Your task to perform on an android device: Go to Reddit.com Image 0: 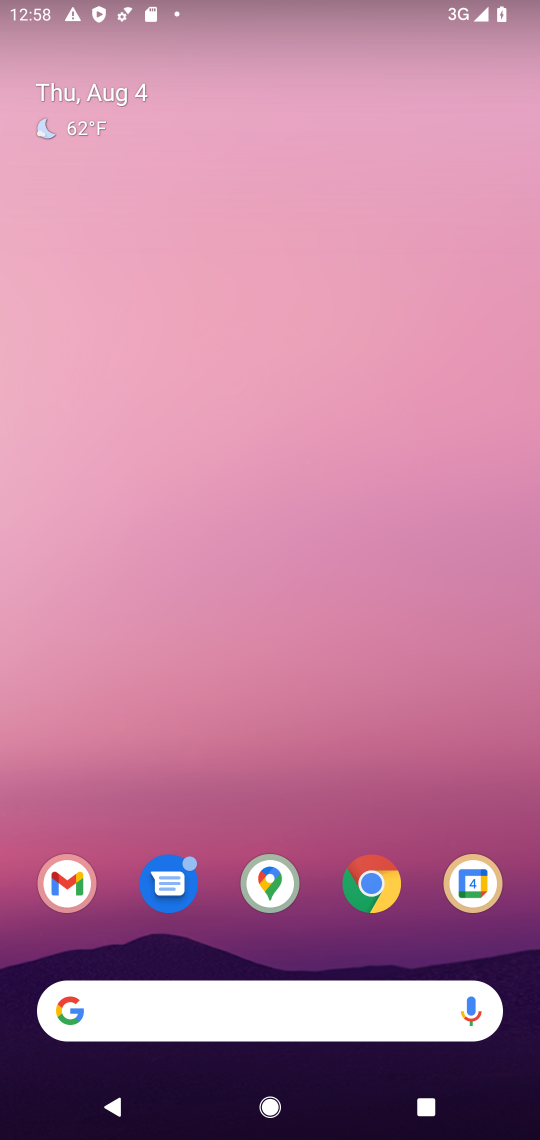
Step 0: drag from (311, 664) to (333, 234)
Your task to perform on an android device: Go to Reddit.com Image 1: 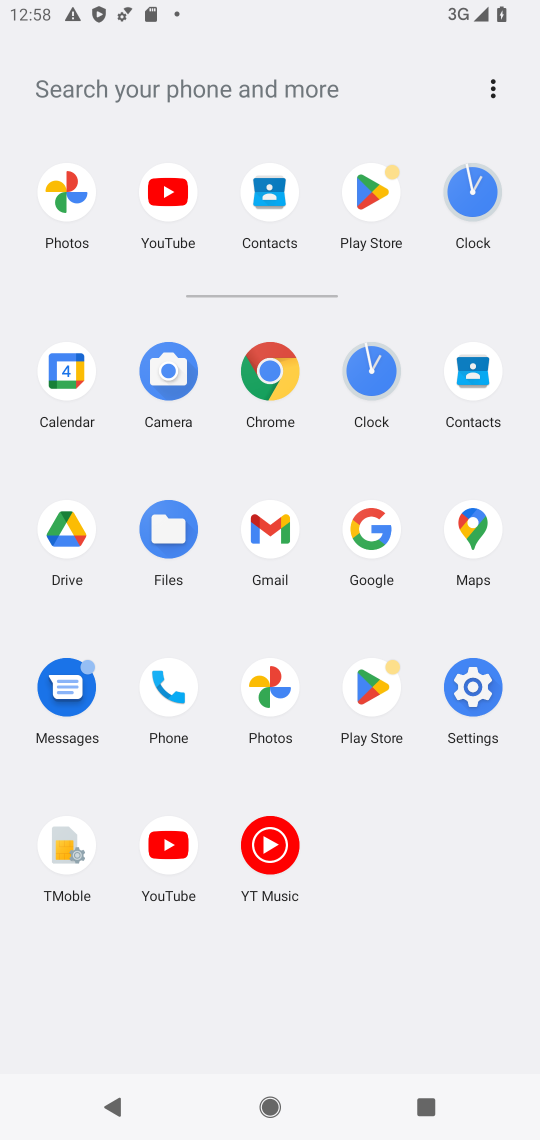
Step 1: click (257, 353)
Your task to perform on an android device: Go to Reddit.com Image 2: 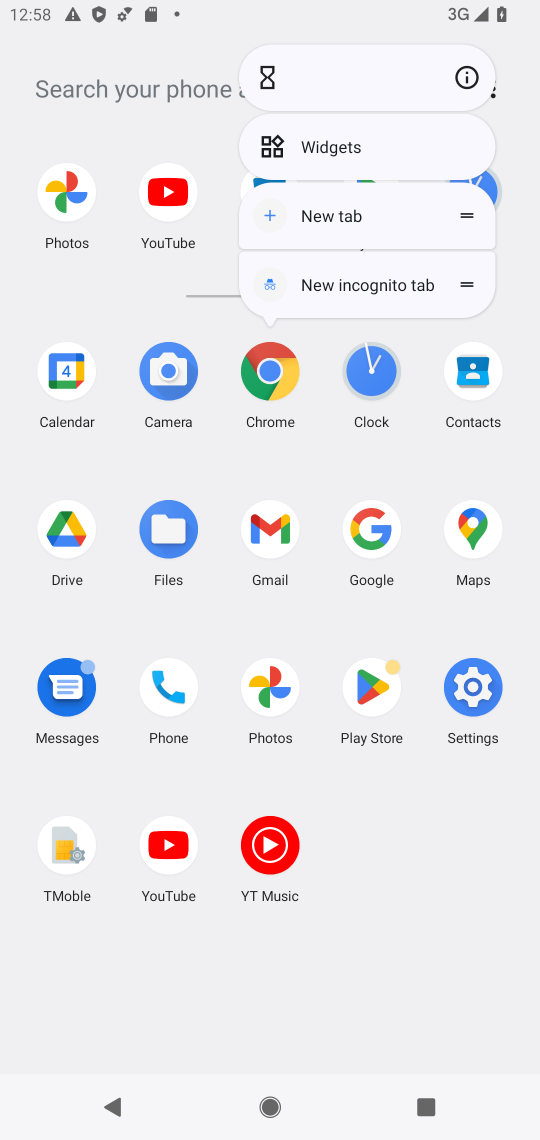
Step 2: click (468, 73)
Your task to perform on an android device: Go to Reddit.com Image 3: 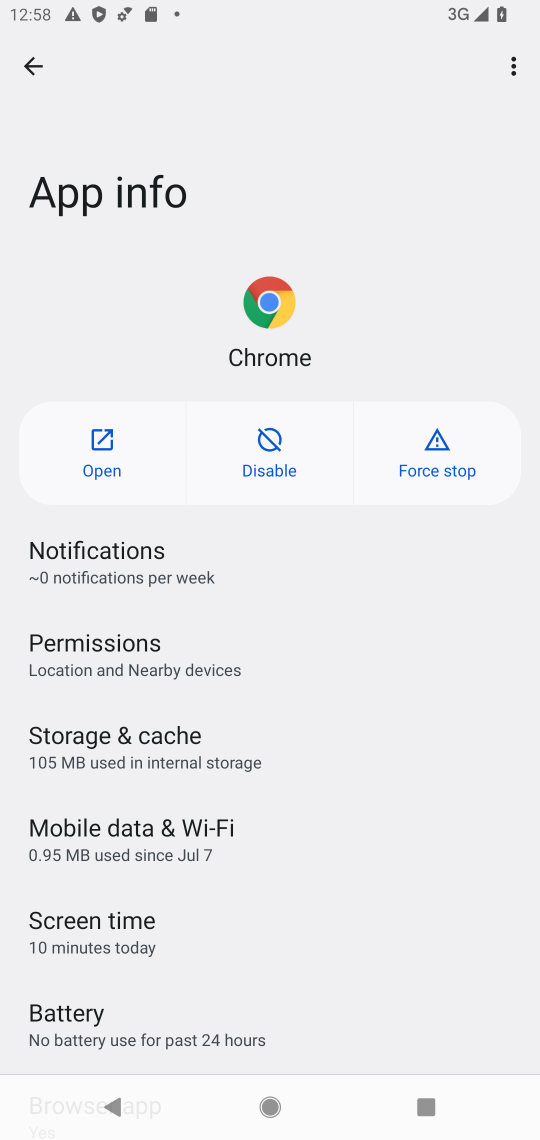
Step 3: click (118, 466)
Your task to perform on an android device: Go to Reddit.com Image 4: 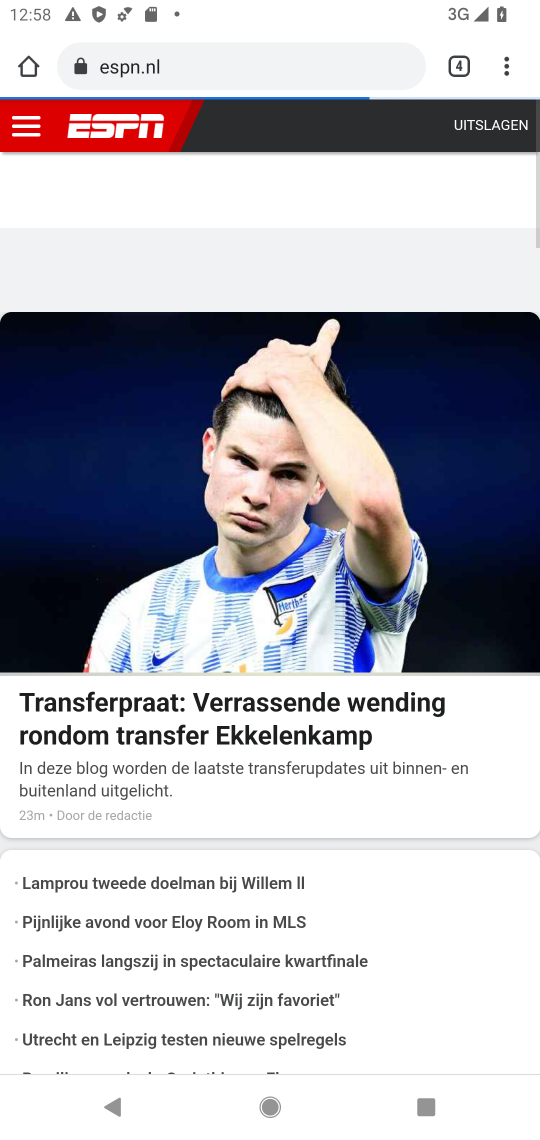
Step 4: drag from (325, 405) to (418, 1009)
Your task to perform on an android device: Go to Reddit.com Image 5: 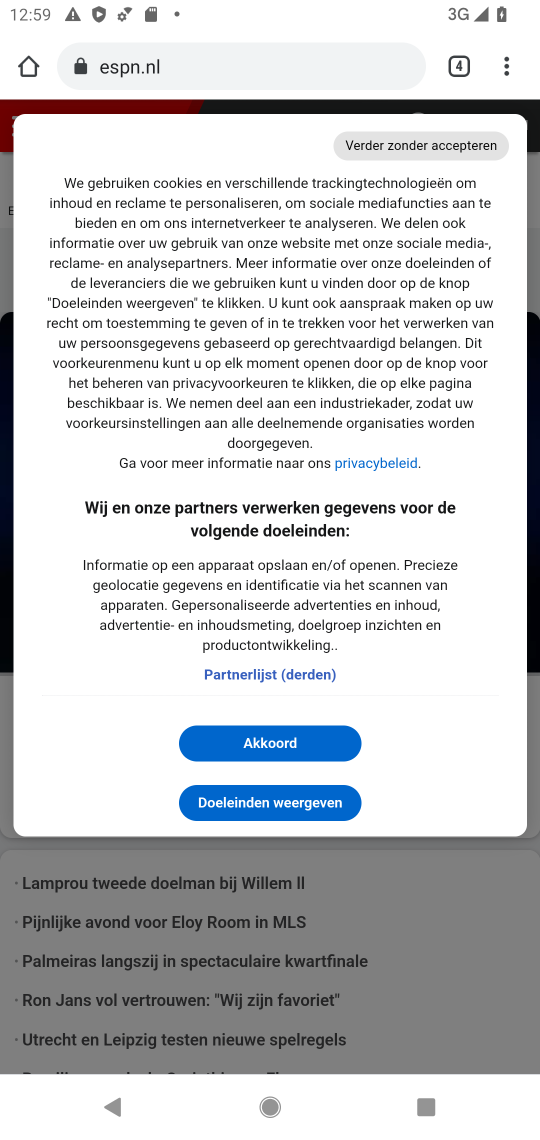
Step 5: drag from (296, 553) to (390, 940)
Your task to perform on an android device: Go to Reddit.com Image 6: 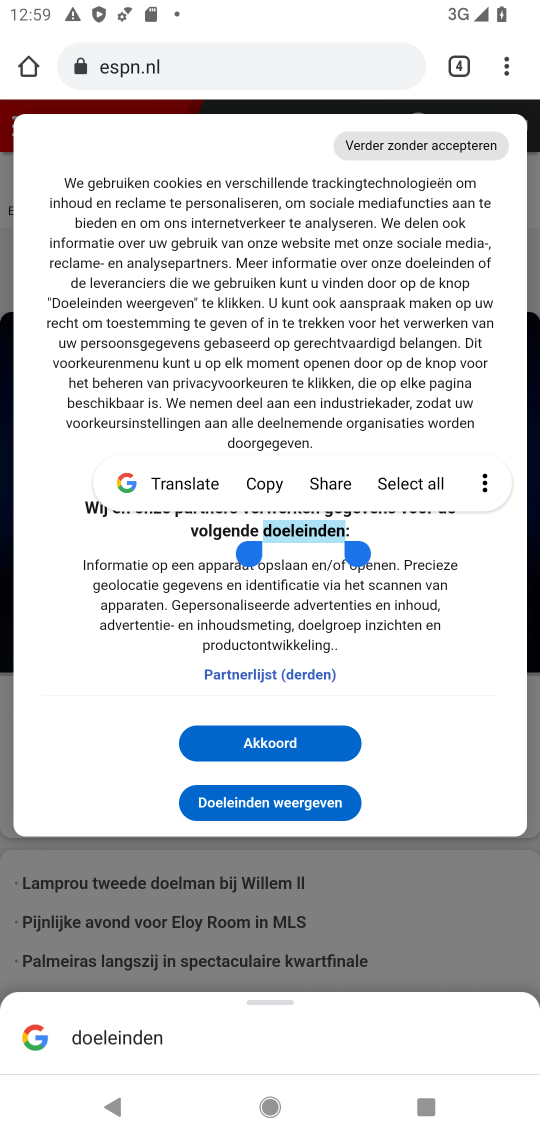
Step 6: click (284, 311)
Your task to perform on an android device: Go to Reddit.com Image 7: 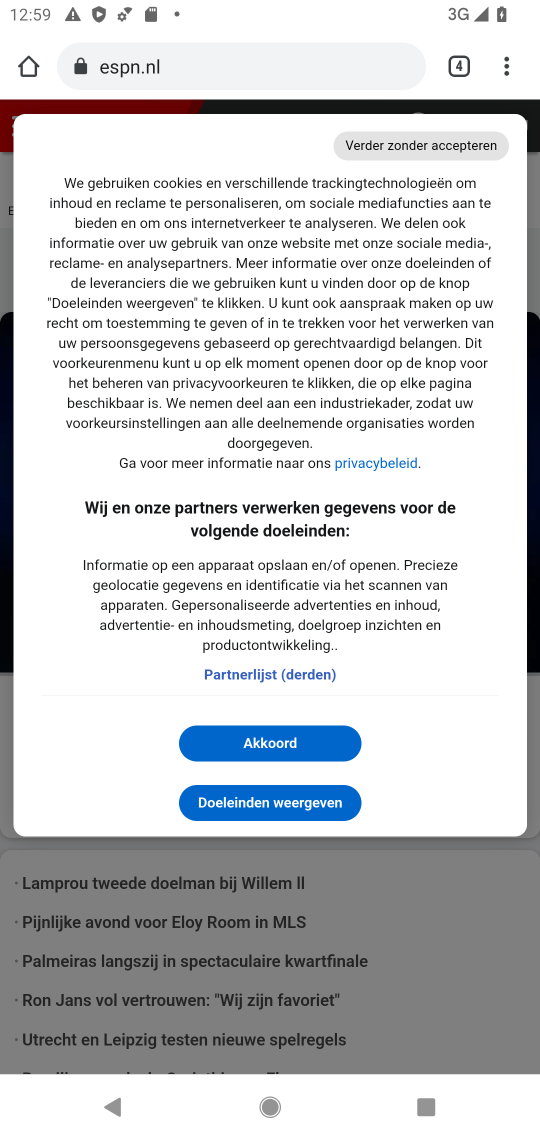
Step 7: click (220, 51)
Your task to perform on an android device: Go to Reddit.com Image 8: 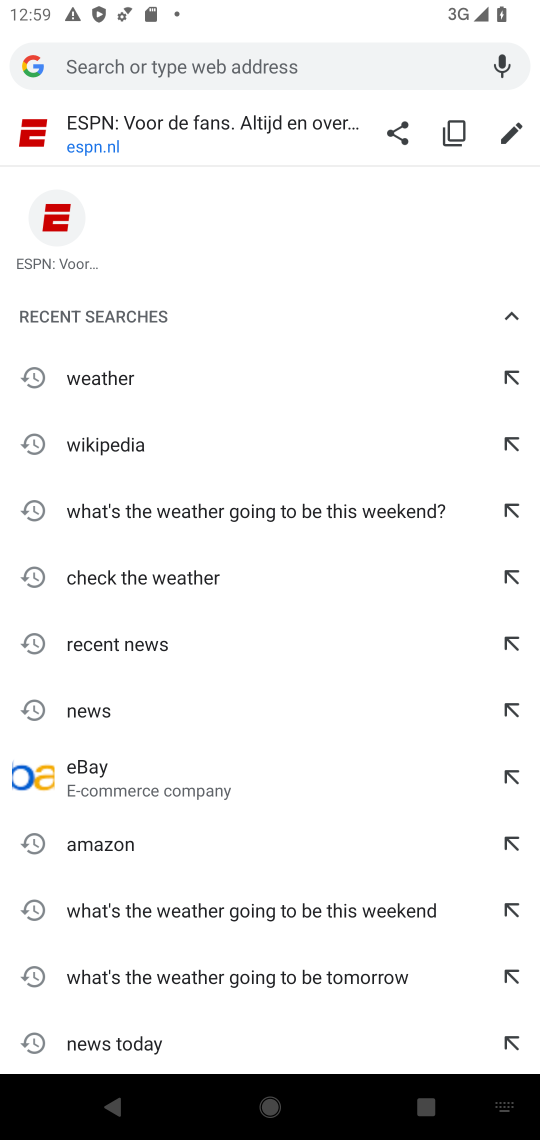
Step 8: click (111, 65)
Your task to perform on an android device: Go to Reddit.com Image 9: 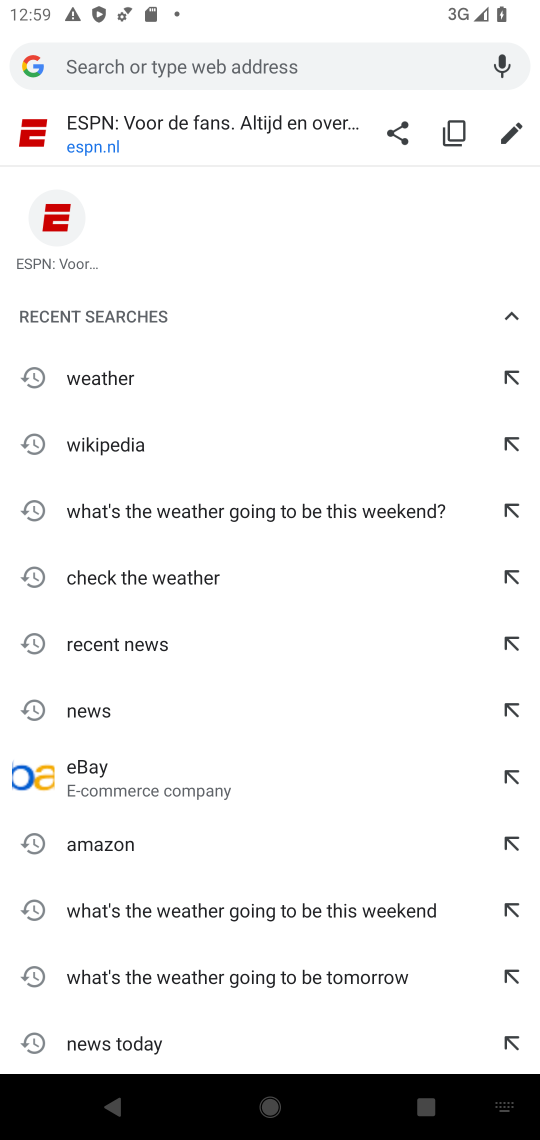
Step 9: type " Reddit.com"
Your task to perform on an android device: Go to Reddit.com Image 10: 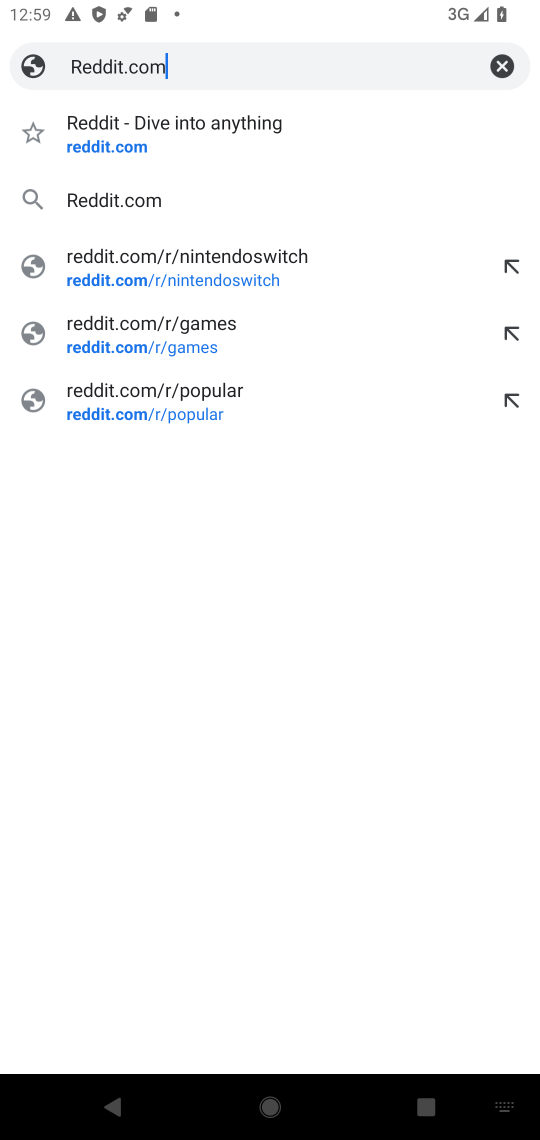
Step 10: click (89, 153)
Your task to perform on an android device: Go to Reddit.com Image 11: 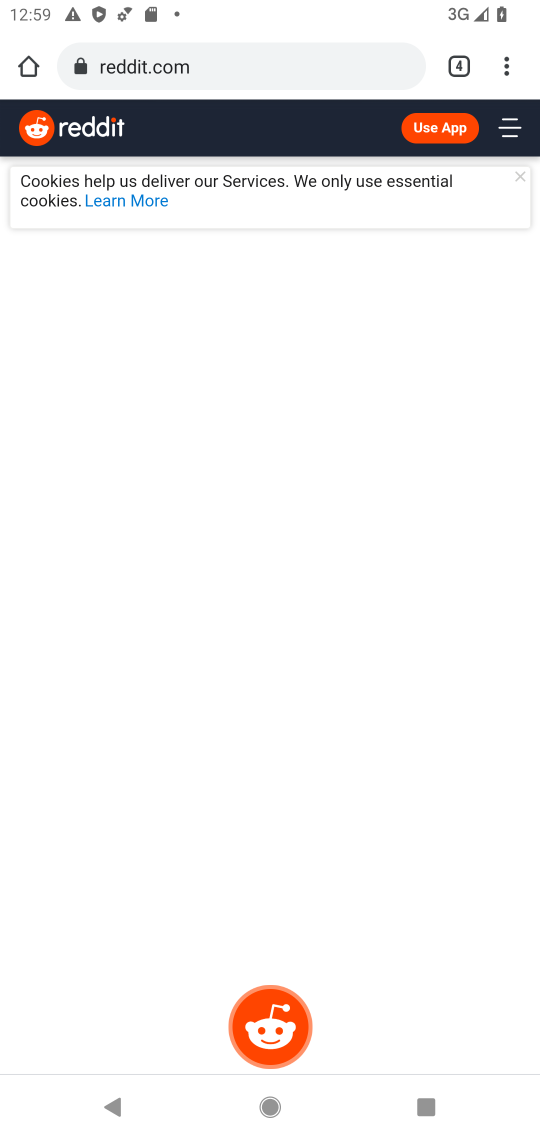
Step 11: task complete